Your task to perform on an android device: turn on improve location accuracy Image 0: 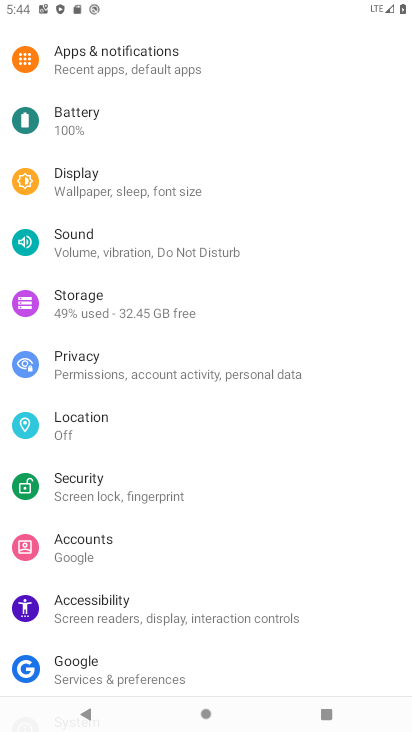
Step 0: click (154, 433)
Your task to perform on an android device: turn on improve location accuracy Image 1: 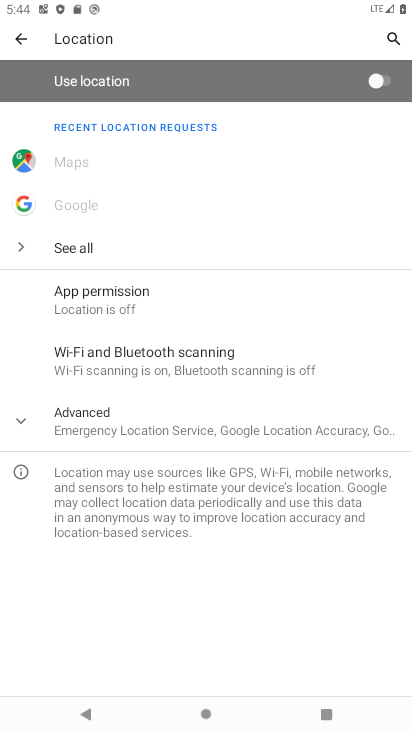
Step 1: click (204, 429)
Your task to perform on an android device: turn on improve location accuracy Image 2: 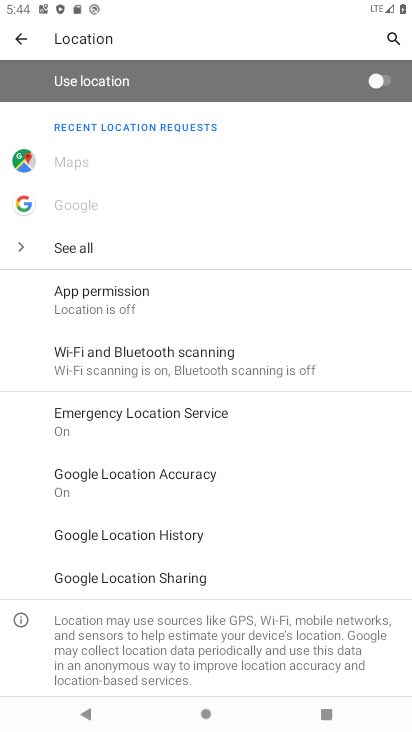
Step 2: click (212, 482)
Your task to perform on an android device: turn on improve location accuracy Image 3: 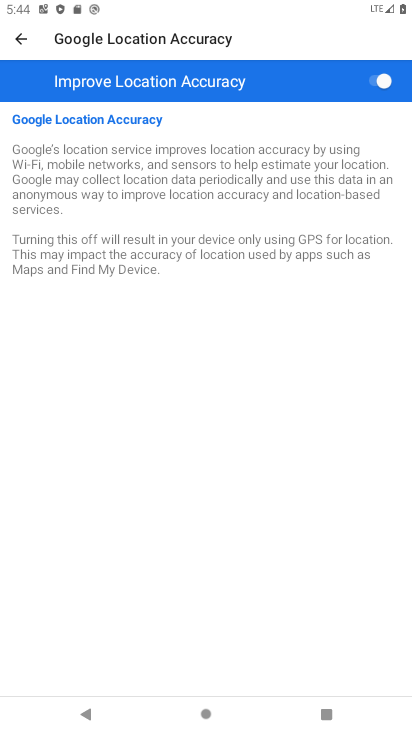
Step 3: task complete